Your task to perform on an android device: Open the Play Movies app and select the watchlist tab. Image 0: 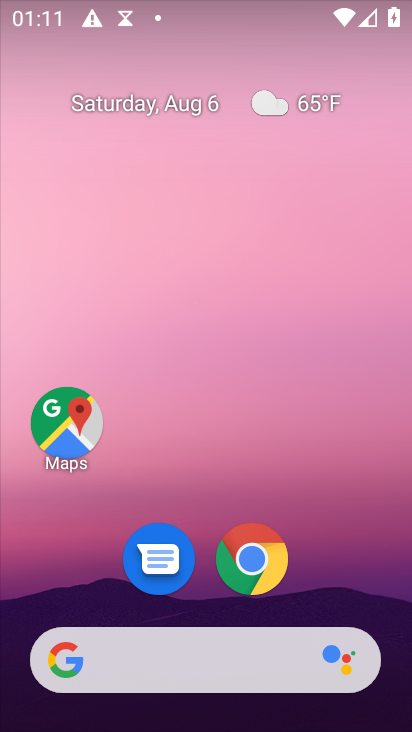
Step 0: drag from (330, 565) to (193, 76)
Your task to perform on an android device: Open the Play Movies app and select the watchlist tab. Image 1: 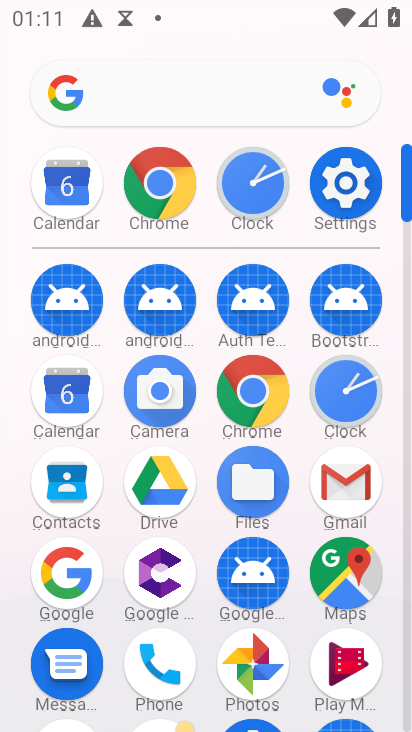
Step 1: click (362, 664)
Your task to perform on an android device: Open the Play Movies app and select the watchlist tab. Image 2: 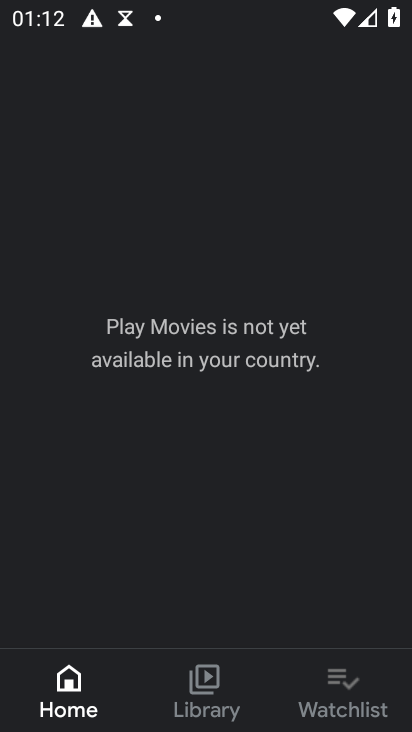
Step 2: click (361, 690)
Your task to perform on an android device: Open the Play Movies app and select the watchlist tab. Image 3: 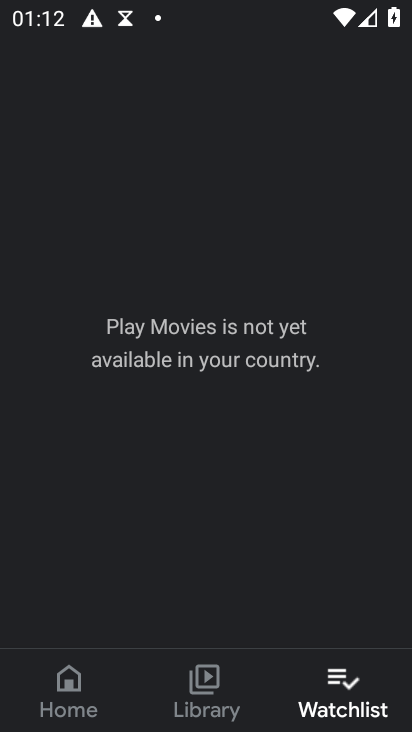
Step 3: task complete